Your task to perform on an android device: turn off notifications in google photos Image 0: 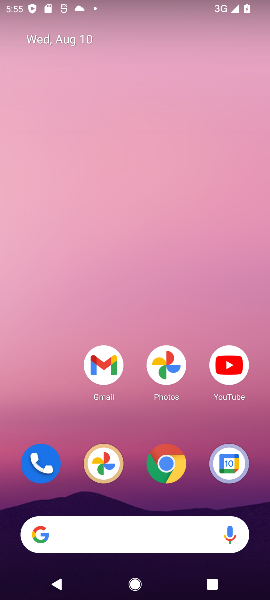
Step 0: click (167, 360)
Your task to perform on an android device: turn off notifications in google photos Image 1: 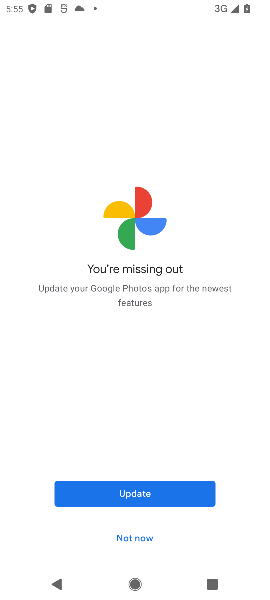
Step 1: click (132, 495)
Your task to perform on an android device: turn off notifications in google photos Image 2: 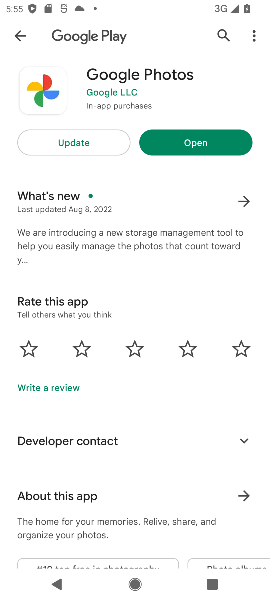
Step 2: click (67, 143)
Your task to perform on an android device: turn off notifications in google photos Image 3: 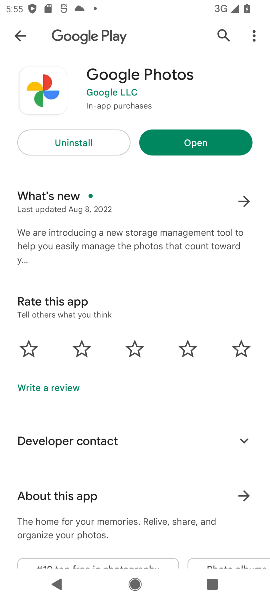
Step 3: click (189, 143)
Your task to perform on an android device: turn off notifications in google photos Image 4: 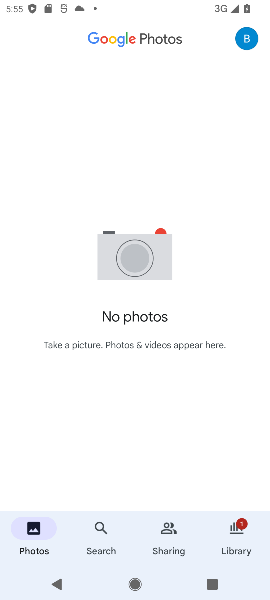
Step 4: click (238, 525)
Your task to perform on an android device: turn off notifications in google photos Image 5: 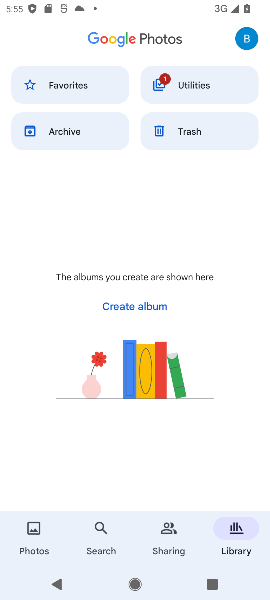
Step 5: click (238, 525)
Your task to perform on an android device: turn off notifications in google photos Image 6: 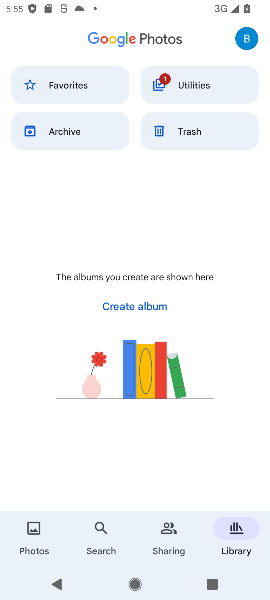
Step 6: click (250, 39)
Your task to perform on an android device: turn off notifications in google photos Image 7: 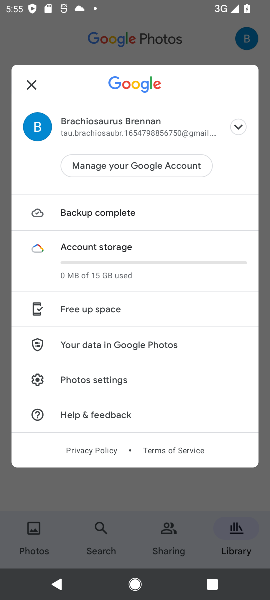
Step 7: click (94, 376)
Your task to perform on an android device: turn off notifications in google photos Image 8: 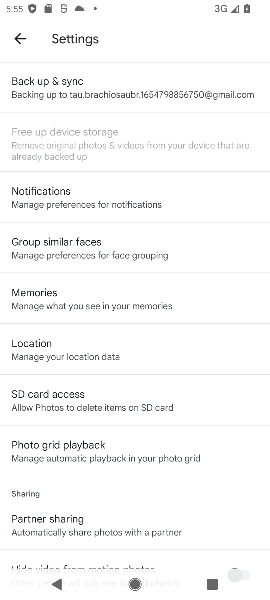
Step 8: click (62, 185)
Your task to perform on an android device: turn off notifications in google photos Image 9: 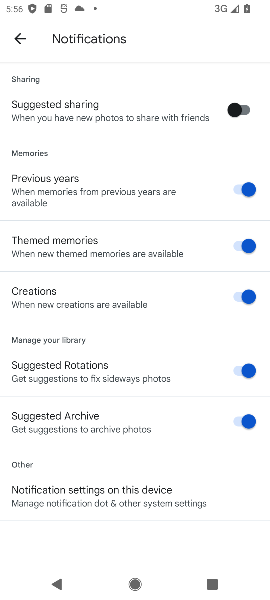
Step 9: click (34, 103)
Your task to perform on an android device: turn off notifications in google photos Image 10: 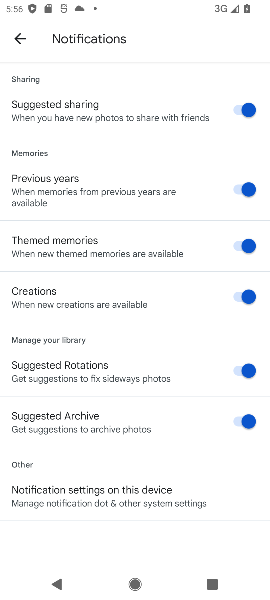
Step 10: click (34, 103)
Your task to perform on an android device: turn off notifications in google photos Image 11: 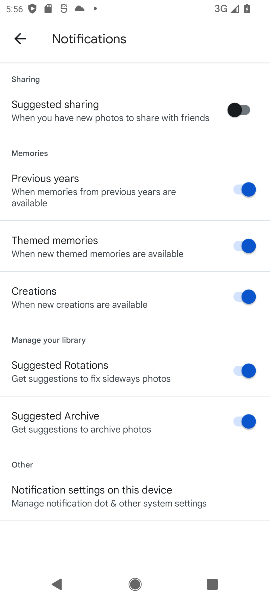
Step 11: click (86, 488)
Your task to perform on an android device: turn off notifications in google photos Image 12: 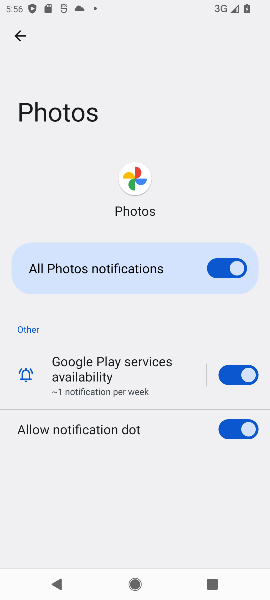
Step 12: click (224, 269)
Your task to perform on an android device: turn off notifications in google photos Image 13: 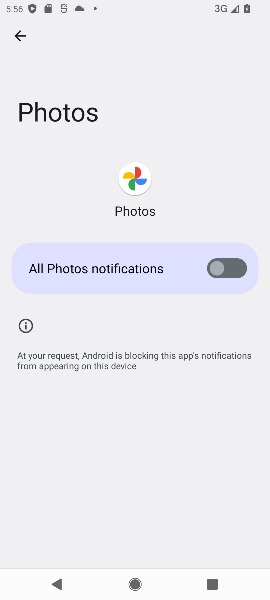
Step 13: task complete